Your task to perform on an android device: move a message to another label in the gmail app Image 0: 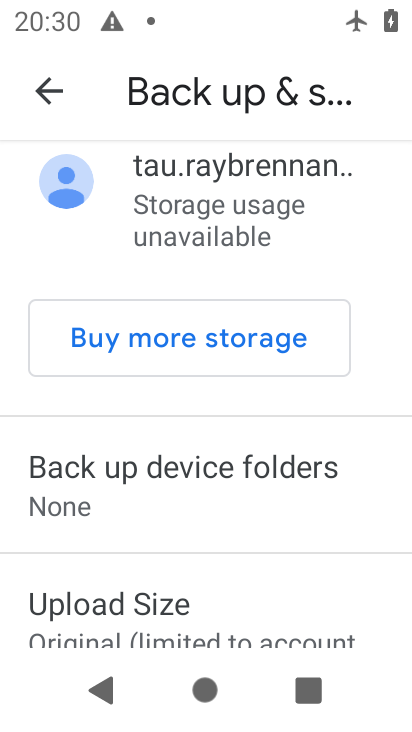
Step 0: press home button
Your task to perform on an android device: move a message to another label in the gmail app Image 1: 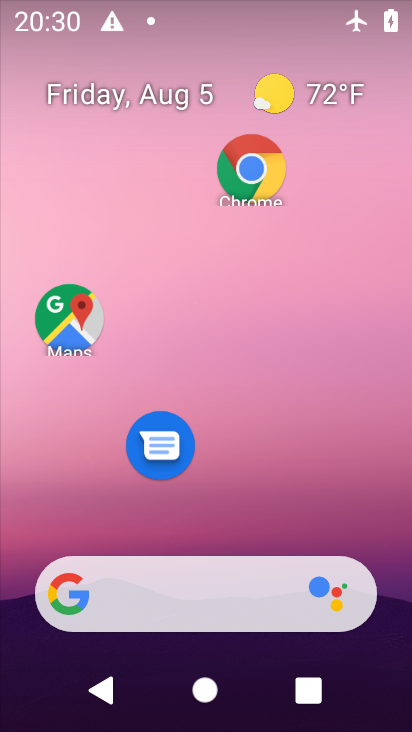
Step 1: drag from (226, 500) to (226, 106)
Your task to perform on an android device: move a message to another label in the gmail app Image 2: 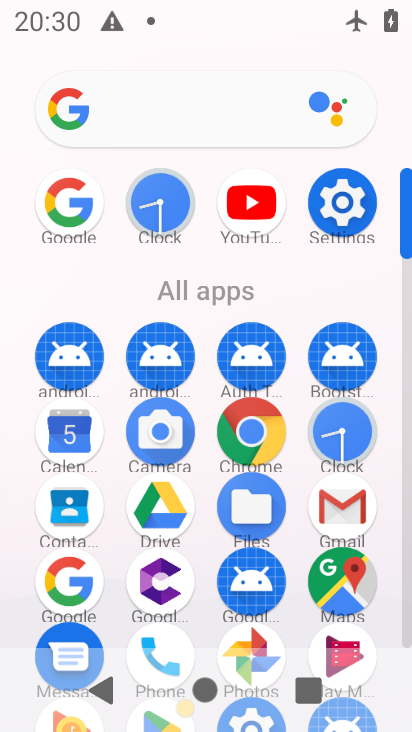
Step 2: click (339, 497)
Your task to perform on an android device: move a message to another label in the gmail app Image 3: 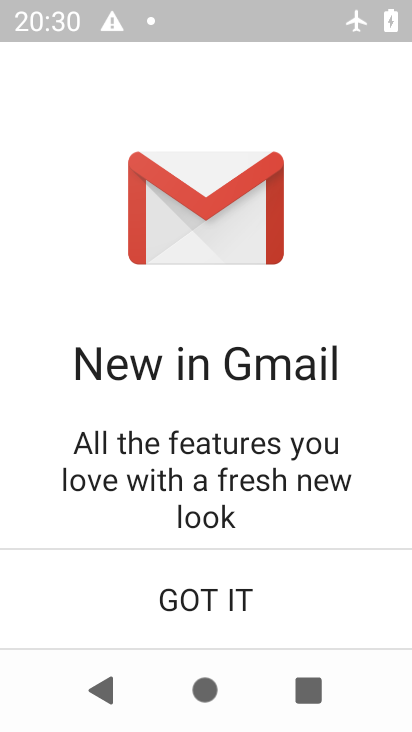
Step 3: click (265, 571)
Your task to perform on an android device: move a message to another label in the gmail app Image 4: 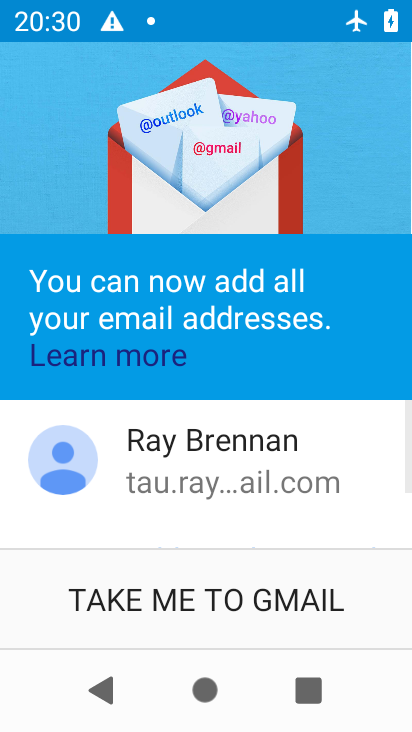
Step 4: click (265, 571)
Your task to perform on an android device: move a message to another label in the gmail app Image 5: 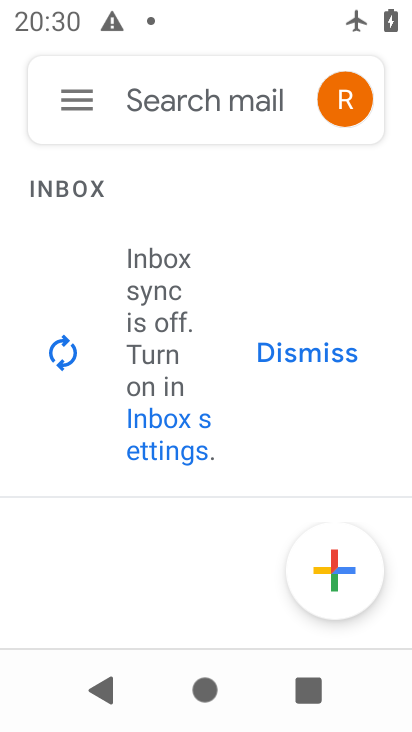
Step 5: click (84, 111)
Your task to perform on an android device: move a message to another label in the gmail app Image 6: 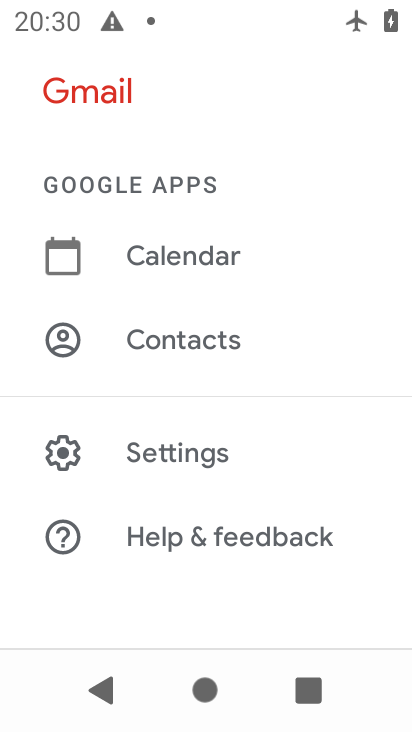
Step 6: task complete